Your task to perform on an android device: toggle priority inbox in the gmail app Image 0: 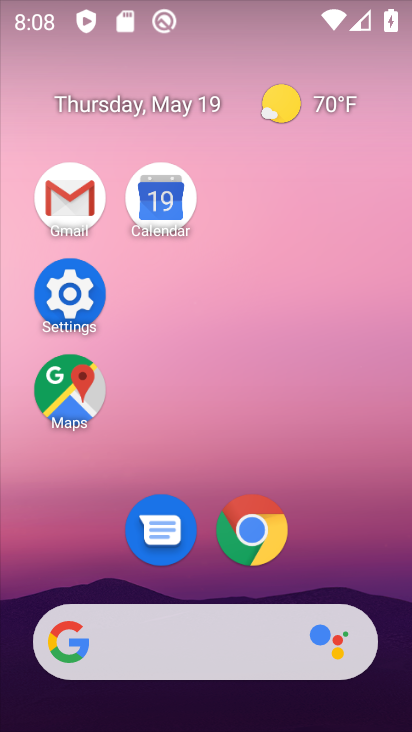
Step 0: click (86, 192)
Your task to perform on an android device: toggle priority inbox in the gmail app Image 1: 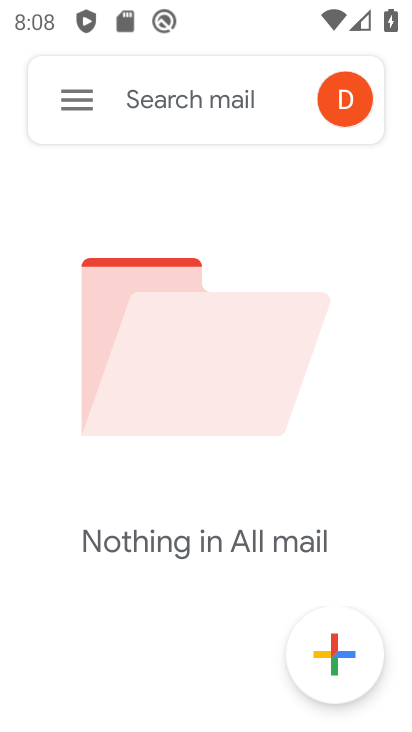
Step 1: click (55, 98)
Your task to perform on an android device: toggle priority inbox in the gmail app Image 2: 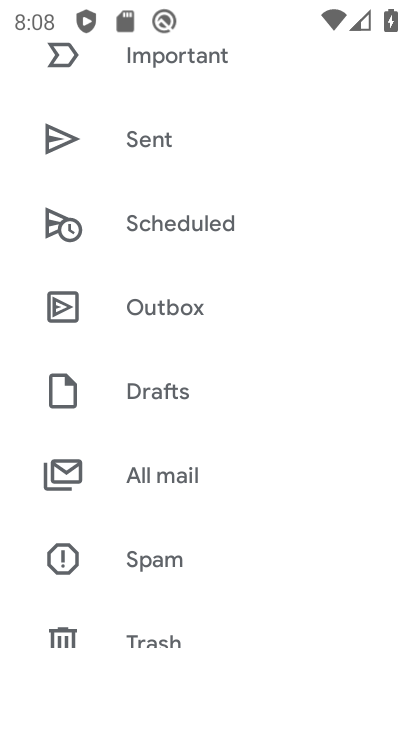
Step 2: drag from (199, 602) to (278, 147)
Your task to perform on an android device: toggle priority inbox in the gmail app Image 3: 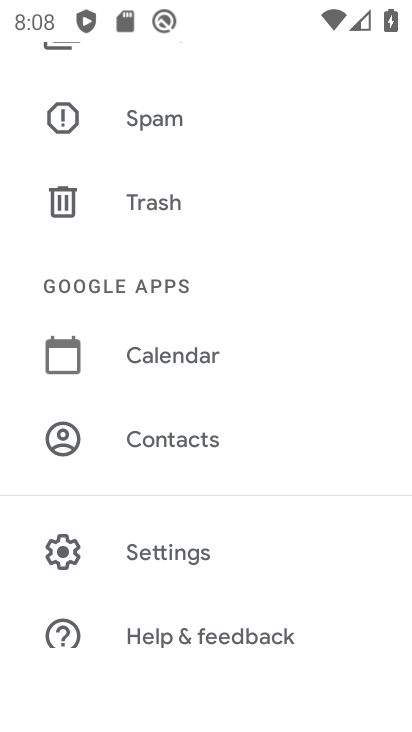
Step 3: click (249, 578)
Your task to perform on an android device: toggle priority inbox in the gmail app Image 4: 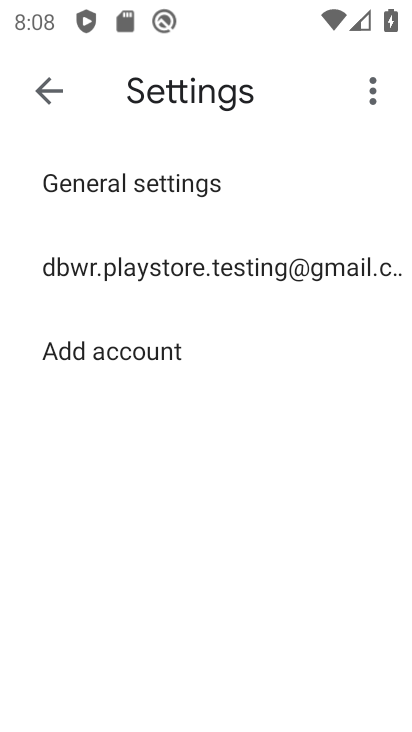
Step 4: click (283, 265)
Your task to perform on an android device: toggle priority inbox in the gmail app Image 5: 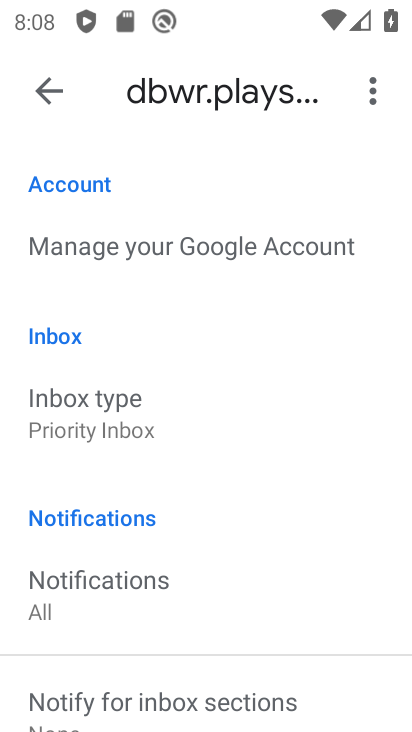
Step 5: click (203, 394)
Your task to perform on an android device: toggle priority inbox in the gmail app Image 6: 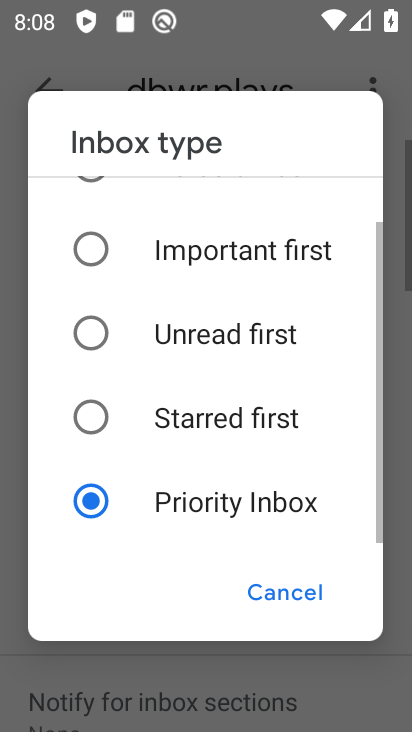
Step 6: drag from (218, 289) to (194, 490)
Your task to perform on an android device: toggle priority inbox in the gmail app Image 7: 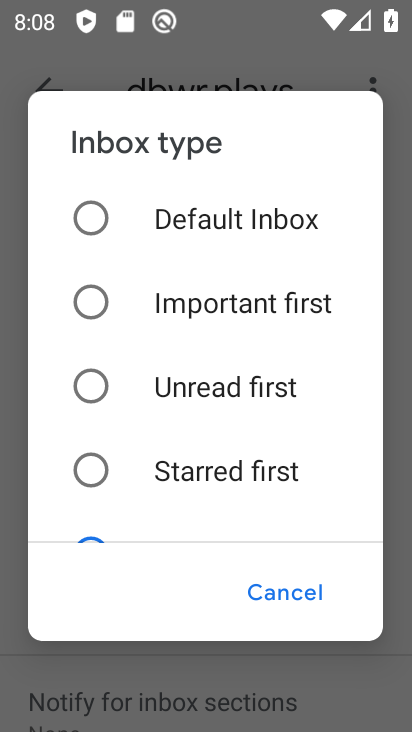
Step 7: click (175, 235)
Your task to perform on an android device: toggle priority inbox in the gmail app Image 8: 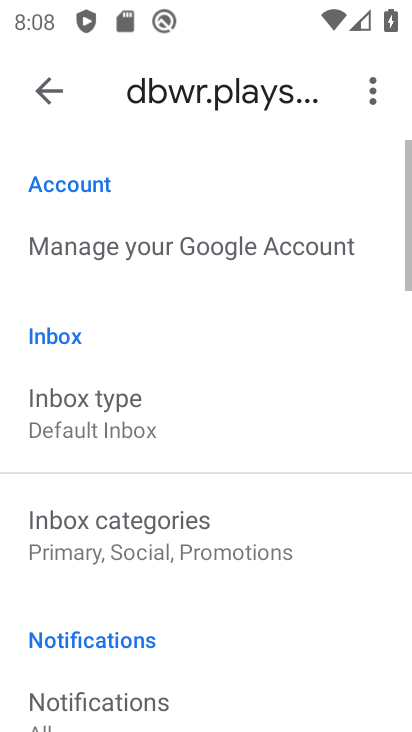
Step 8: task complete